Your task to perform on an android device: turn on bluetooth scan Image 0: 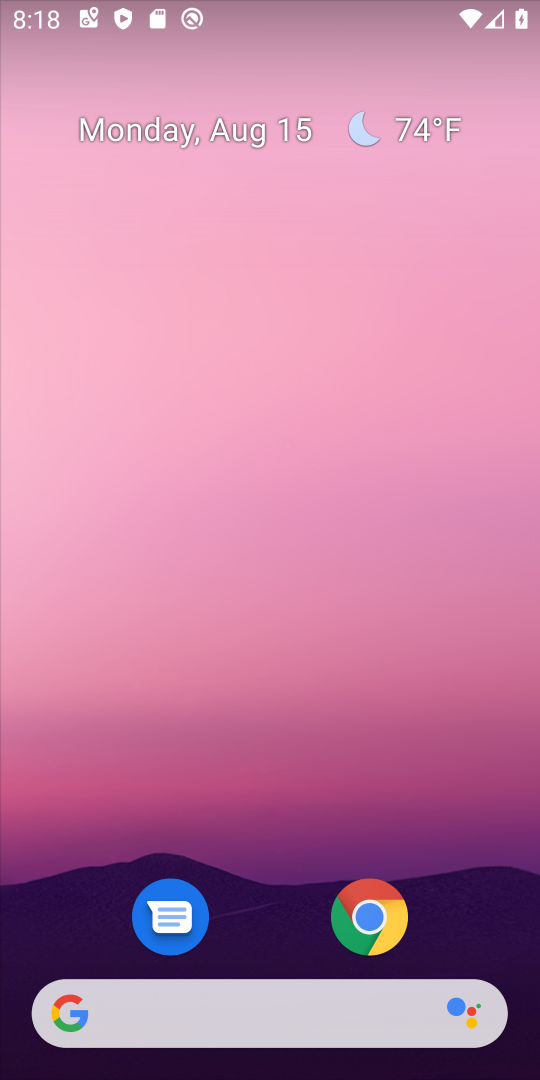
Step 0: drag from (236, 915) to (294, 0)
Your task to perform on an android device: turn on bluetooth scan Image 1: 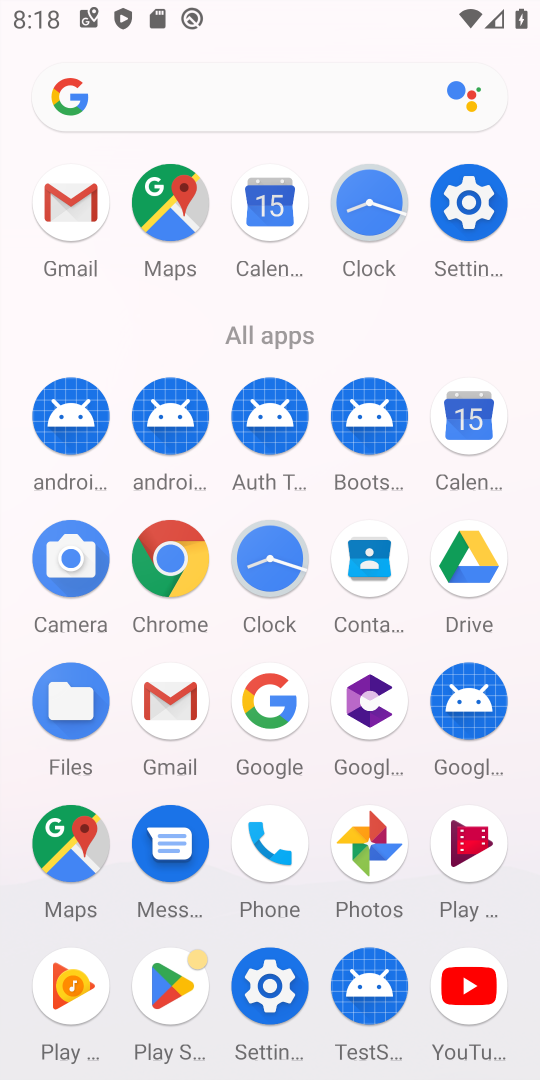
Step 1: click (473, 190)
Your task to perform on an android device: turn on bluetooth scan Image 2: 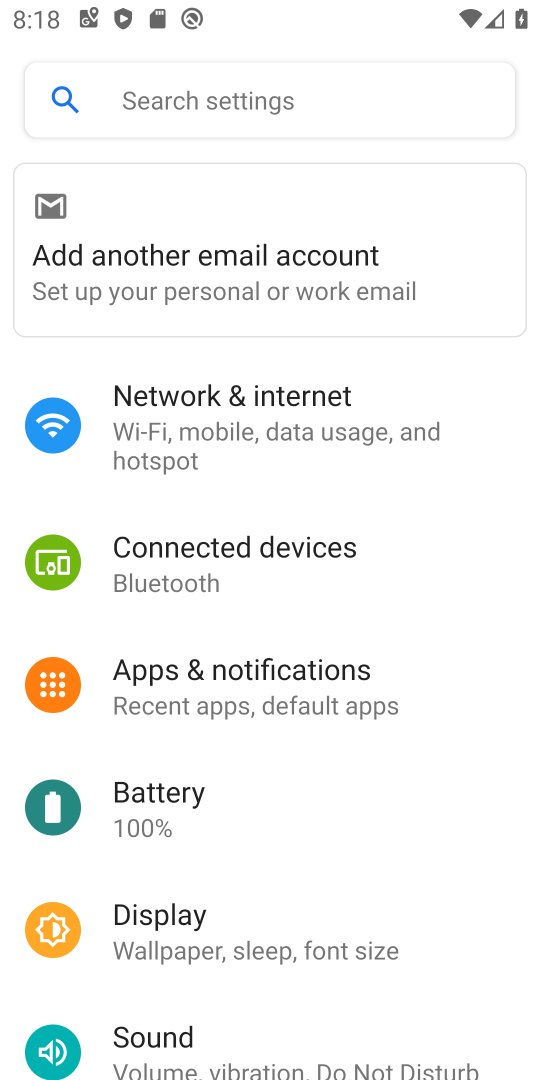
Step 2: drag from (272, 903) to (360, 57)
Your task to perform on an android device: turn on bluetooth scan Image 3: 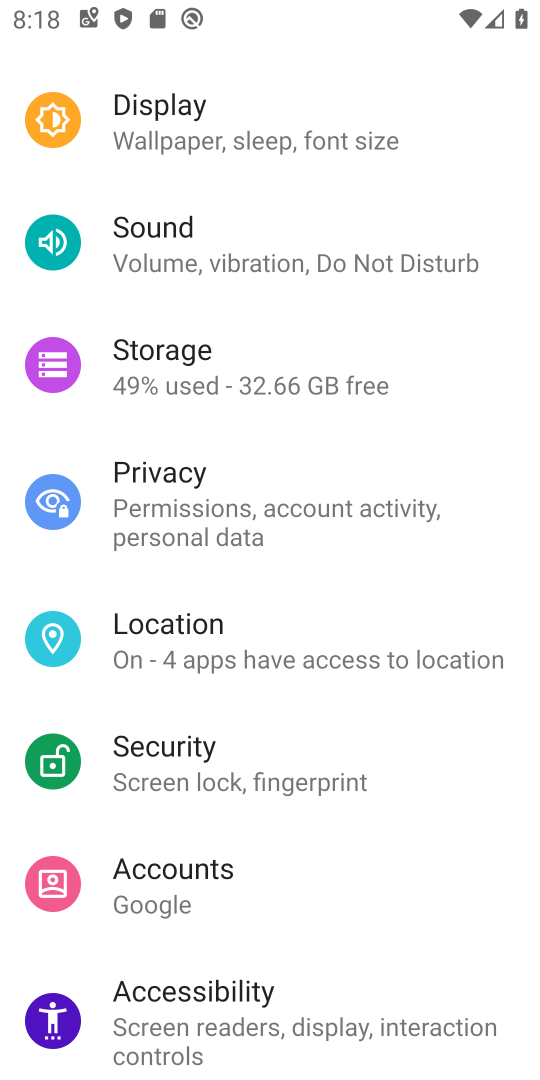
Step 3: click (239, 631)
Your task to perform on an android device: turn on bluetooth scan Image 4: 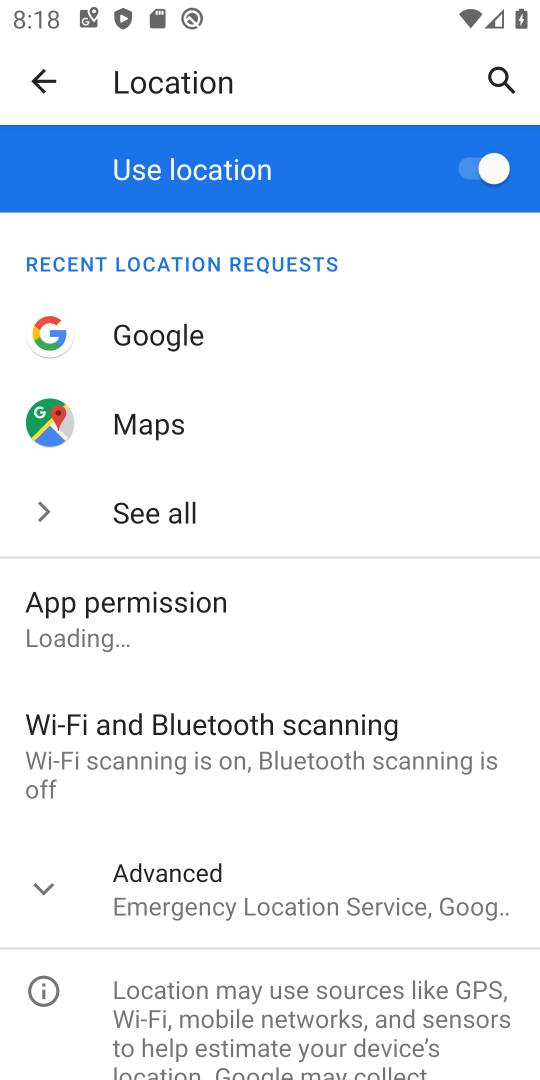
Step 4: click (256, 731)
Your task to perform on an android device: turn on bluetooth scan Image 5: 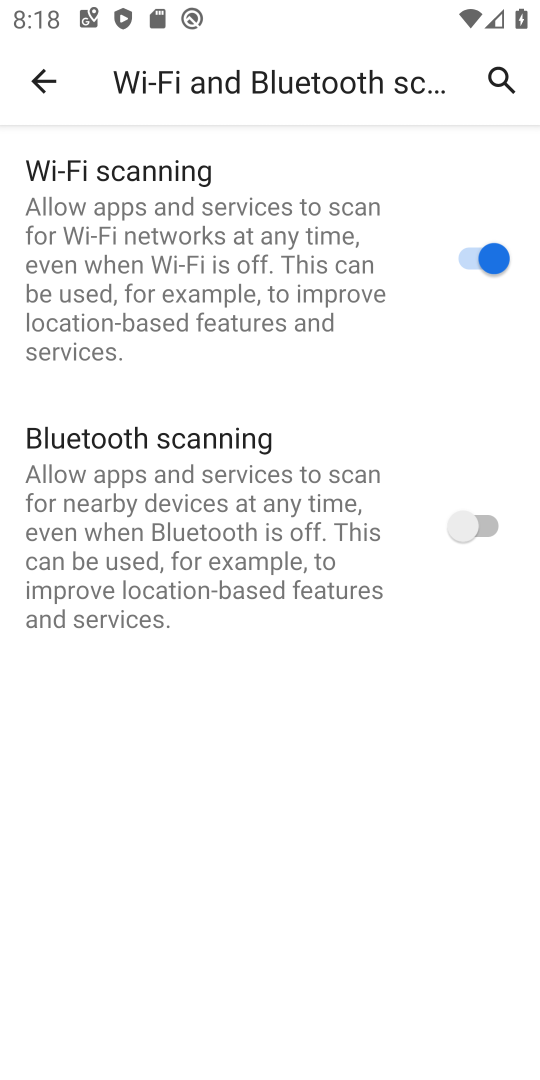
Step 5: click (465, 514)
Your task to perform on an android device: turn on bluetooth scan Image 6: 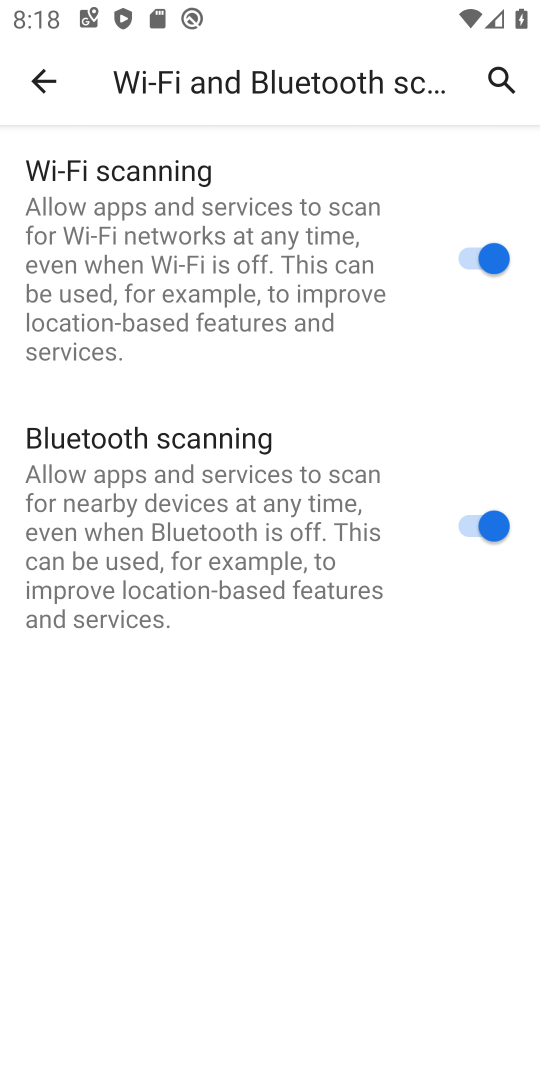
Step 6: task complete